Your task to perform on an android device: Open settings Image 0: 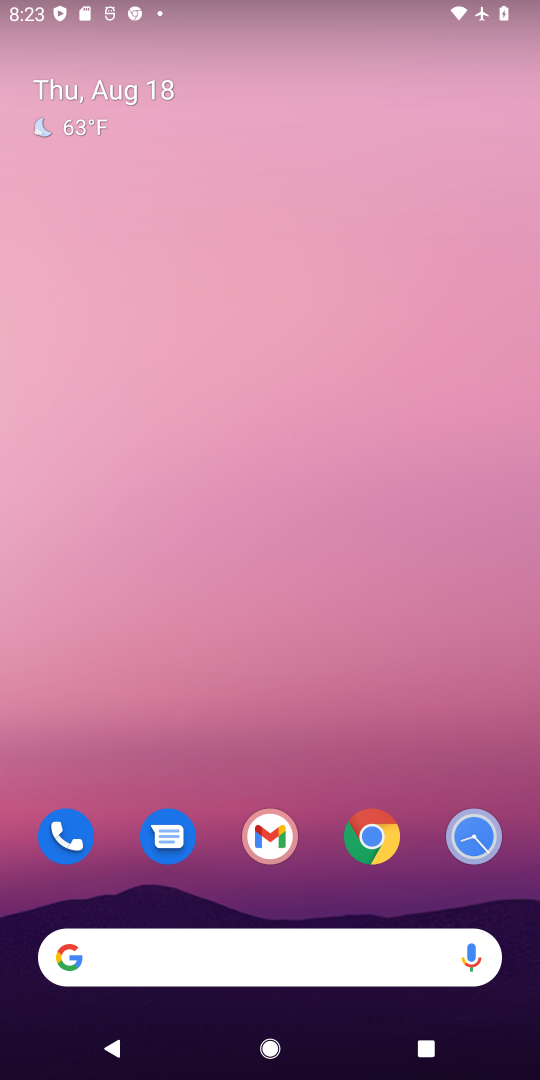
Step 0: drag from (322, 653) to (319, 58)
Your task to perform on an android device: Open settings Image 1: 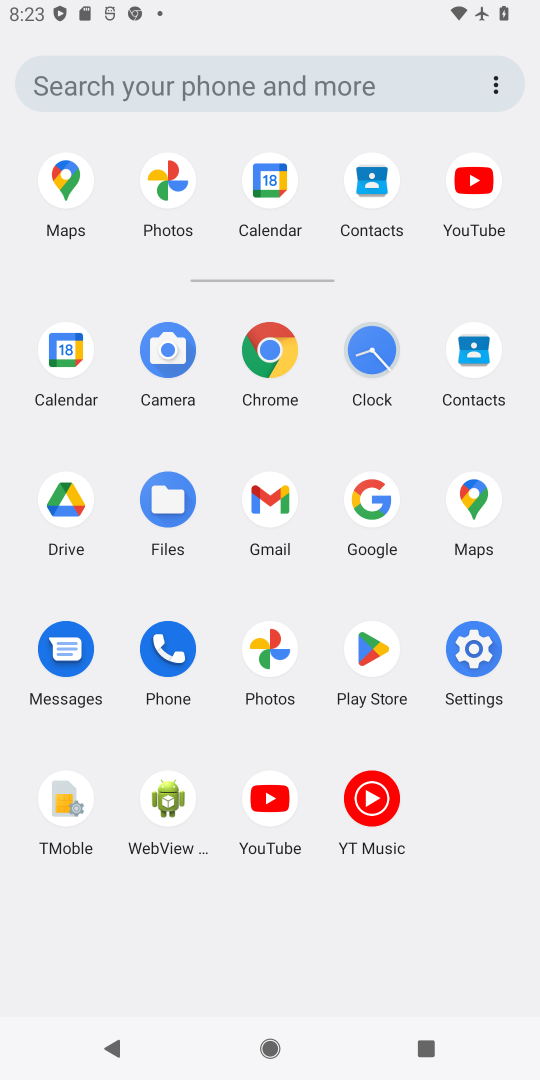
Step 1: click (480, 649)
Your task to perform on an android device: Open settings Image 2: 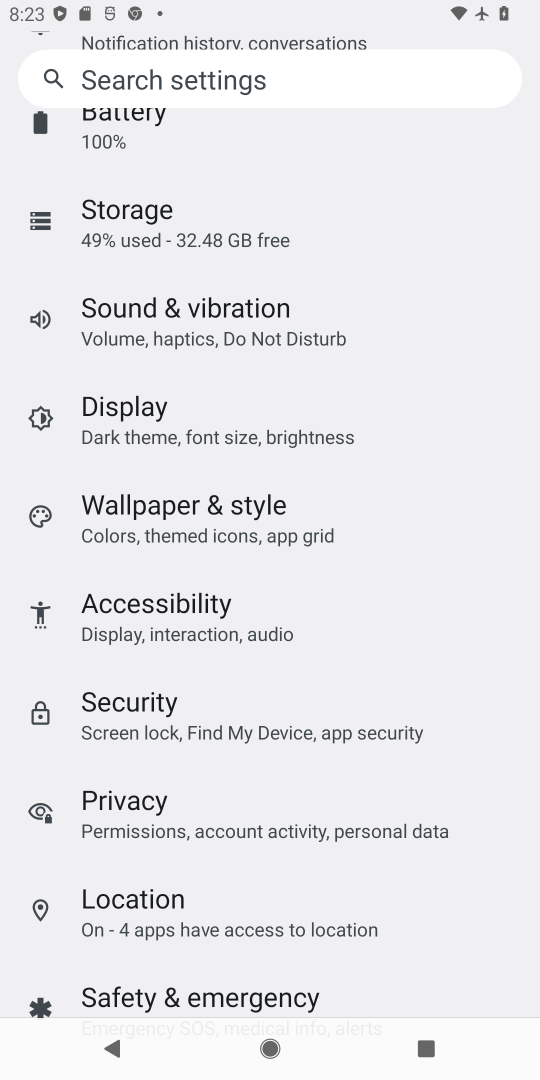
Step 2: task complete